Your task to perform on an android device: change keyboard looks Image 0: 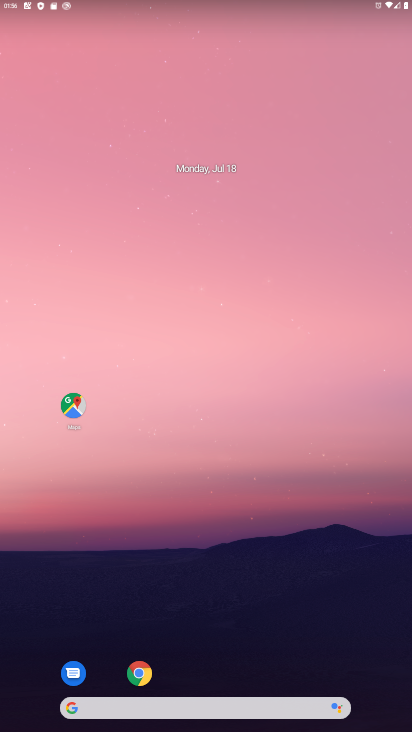
Step 0: drag from (261, 685) to (252, 159)
Your task to perform on an android device: change keyboard looks Image 1: 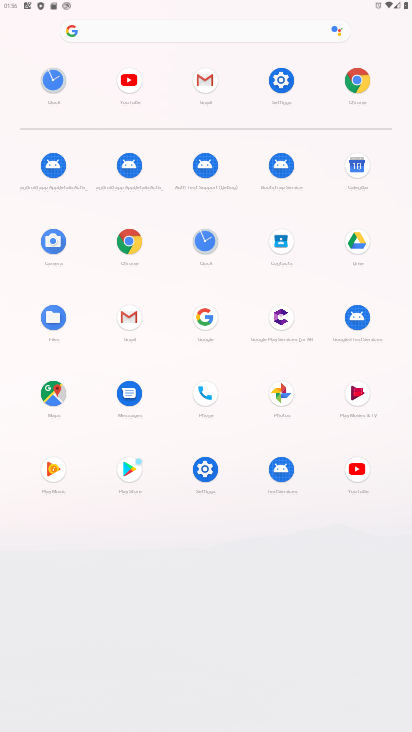
Step 1: click (274, 86)
Your task to perform on an android device: change keyboard looks Image 2: 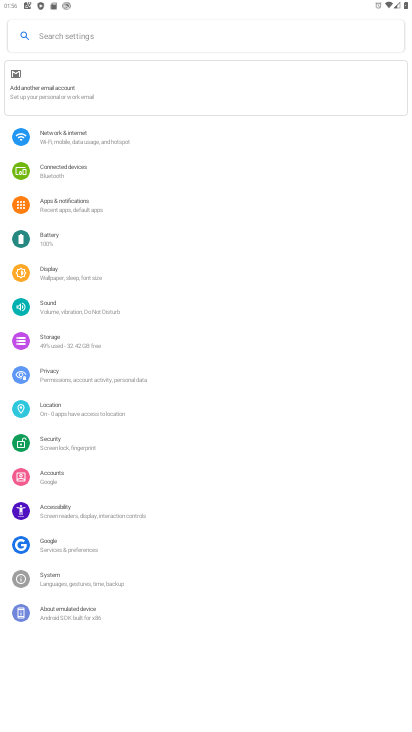
Step 2: click (145, 572)
Your task to perform on an android device: change keyboard looks Image 3: 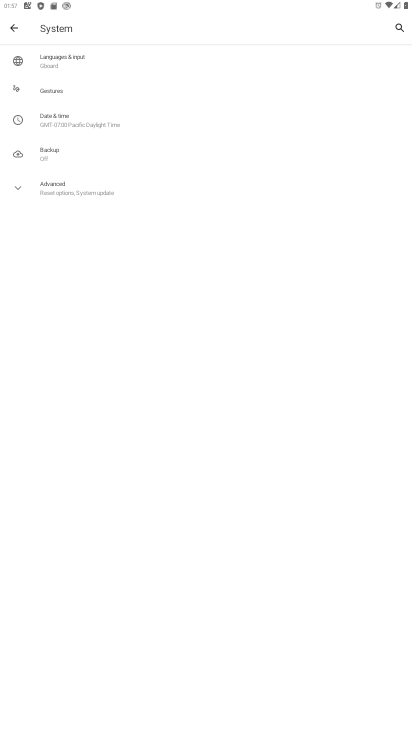
Step 3: click (101, 58)
Your task to perform on an android device: change keyboard looks Image 4: 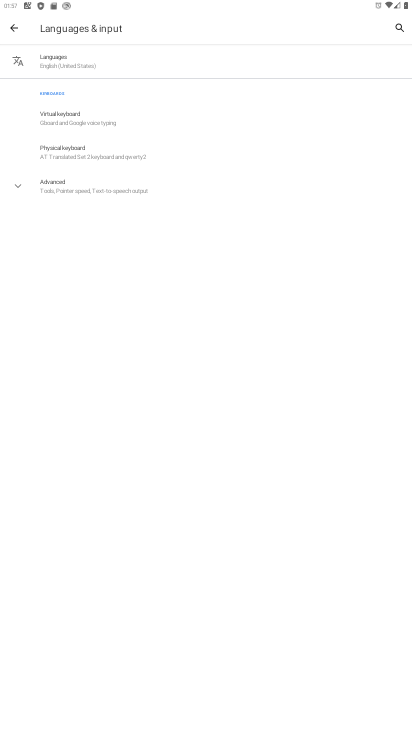
Step 4: click (138, 121)
Your task to perform on an android device: change keyboard looks Image 5: 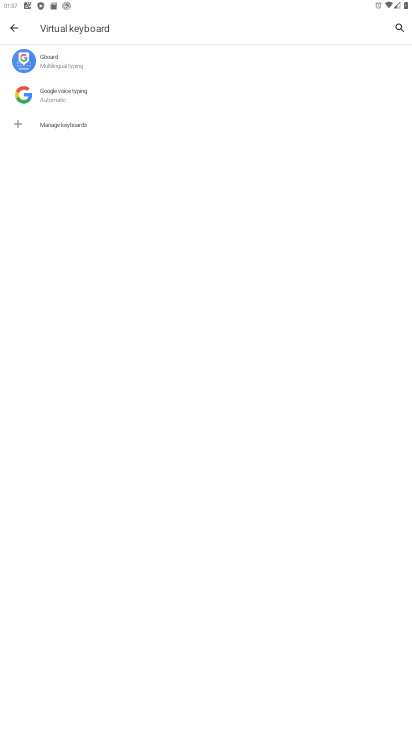
Step 5: click (64, 73)
Your task to perform on an android device: change keyboard looks Image 6: 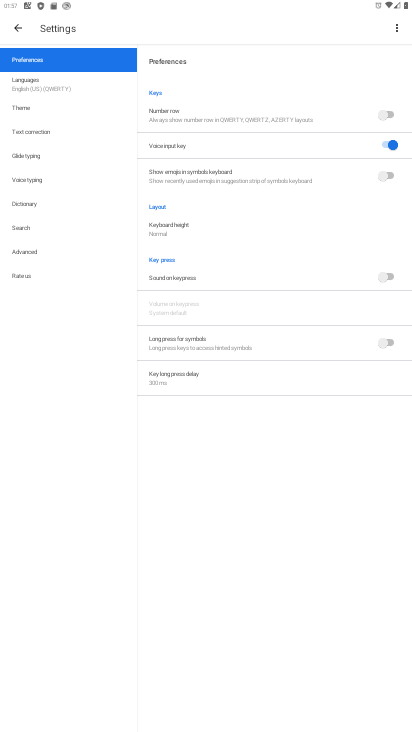
Step 6: click (48, 105)
Your task to perform on an android device: change keyboard looks Image 7: 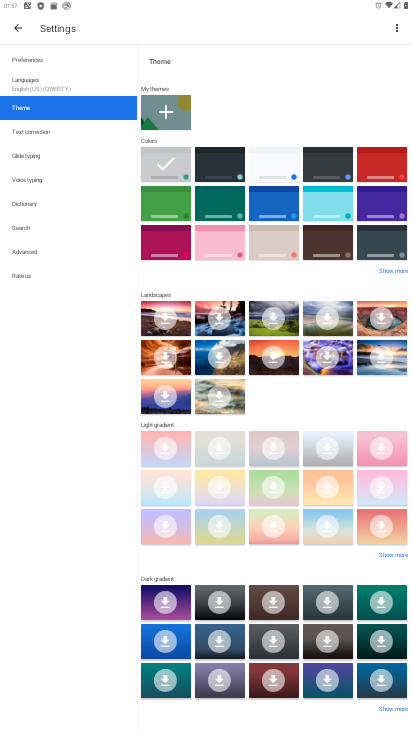
Step 7: click (227, 182)
Your task to perform on an android device: change keyboard looks Image 8: 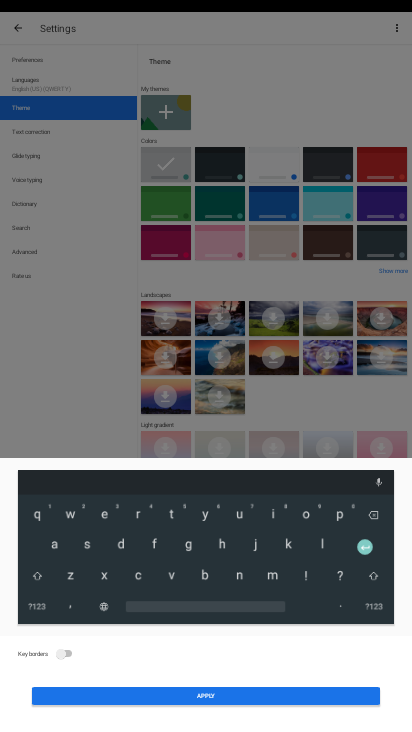
Step 8: click (180, 687)
Your task to perform on an android device: change keyboard looks Image 9: 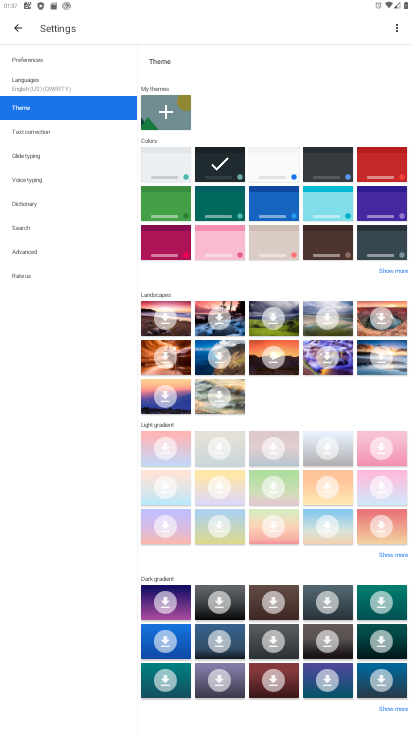
Step 9: task complete